Your task to perform on an android device: turn off location history Image 0: 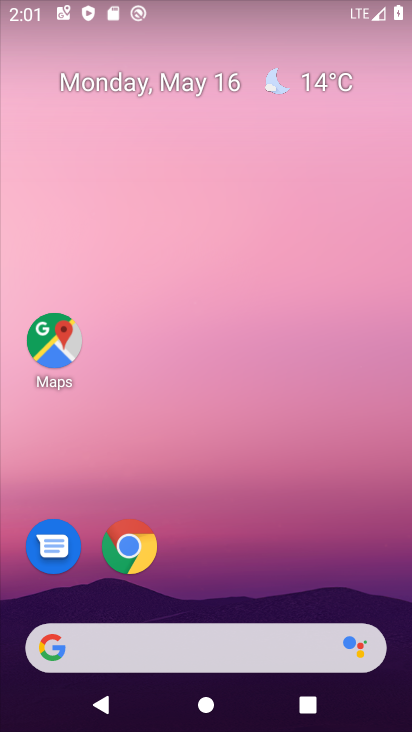
Step 0: drag from (251, 676) to (363, 130)
Your task to perform on an android device: turn off location history Image 1: 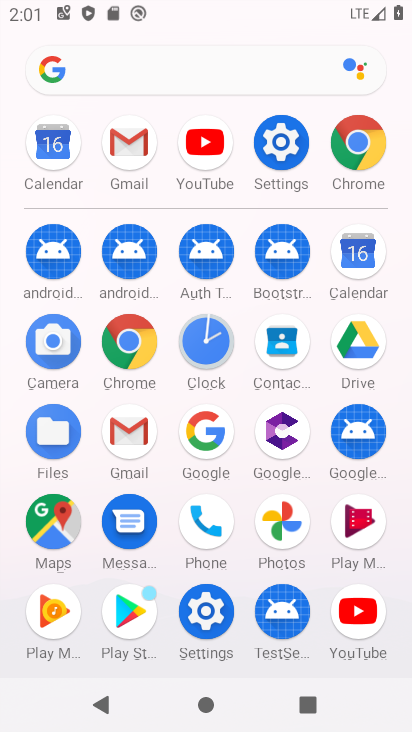
Step 1: click (274, 138)
Your task to perform on an android device: turn off location history Image 2: 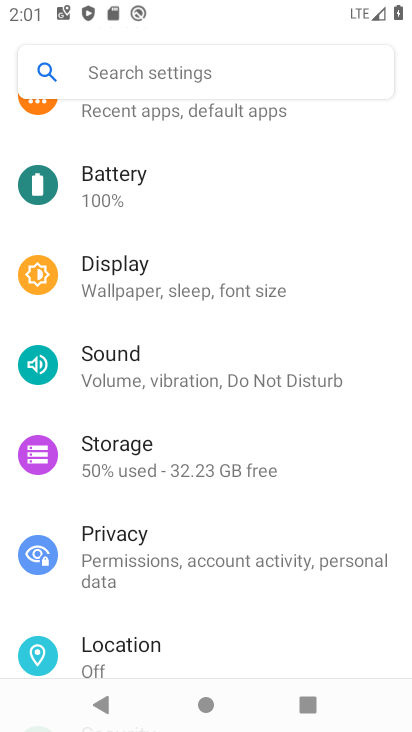
Step 2: click (164, 69)
Your task to perform on an android device: turn off location history Image 3: 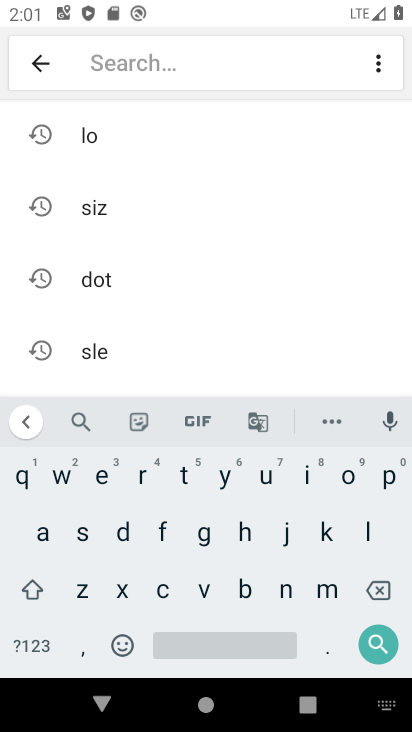
Step 3: click (120, 131)
Your task to perform on an android device: turn off location history Image 4: 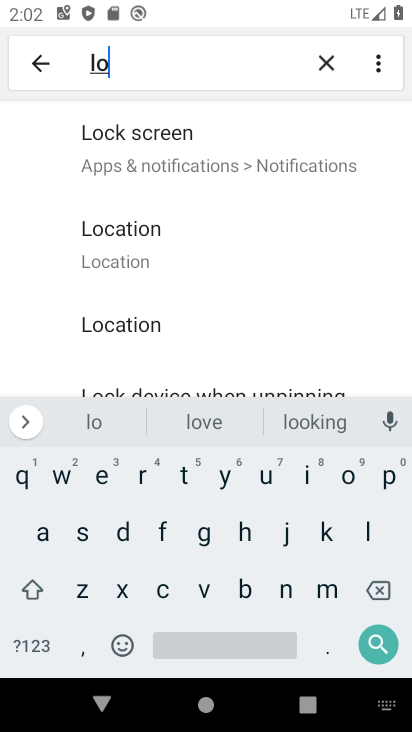
Step 4: click (140, 240)
Your task to perform on an android device: turn off location history Image 5: 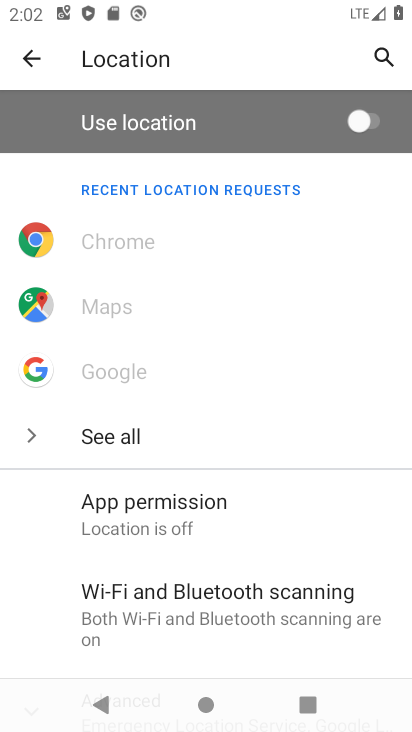
Step 5: drag from (150, 538) to (244, 242)
Your task to perform on an android device: turn off location history Image 6: 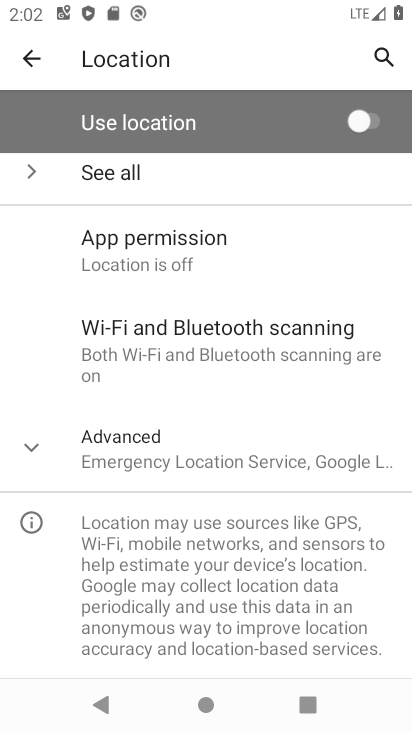
Step 6: click (75, 446)
Your task to perform on an android device: turn off location history Image 7: 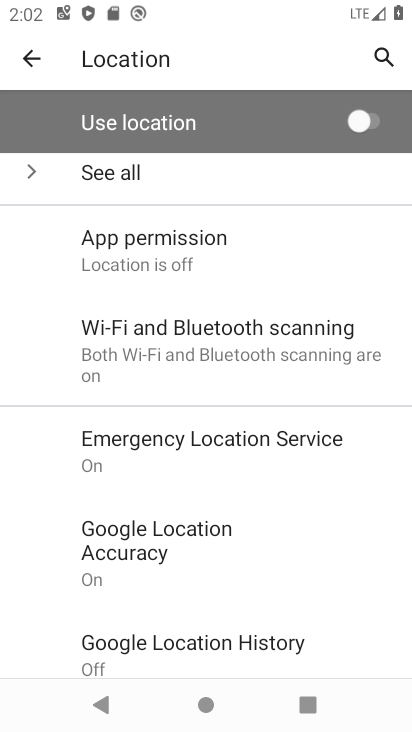
Step 7: click (207, 636)
Your task to perform on an android device: turn off location history Image 8: 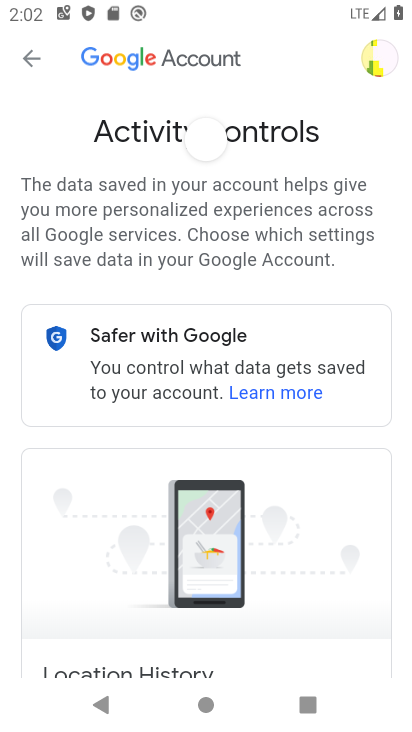
Step 8: drag from (236, 552) to (346, 146)
Your task to perform on an android device: turn off location history Image 9: 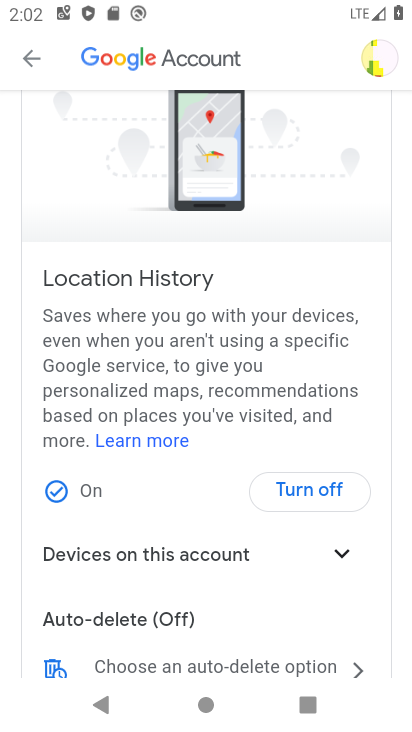
Step 9: click (295, 492)
Your task to perform on an android device: turn off location history Image 10: 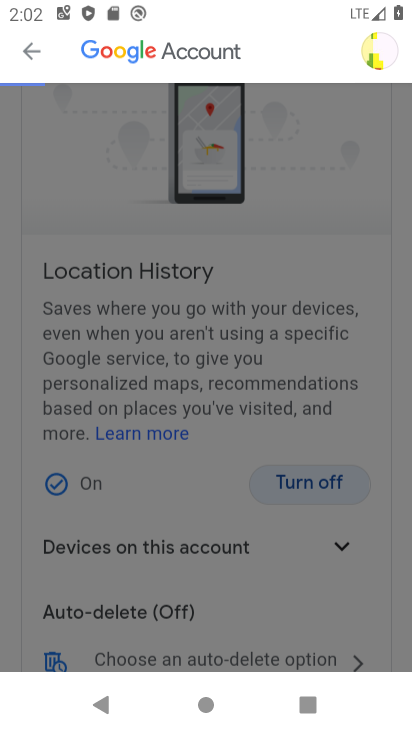
Step 10: task complete